Your task to perform on an android device: see tabs open on other devices in the chrome app Image 0: 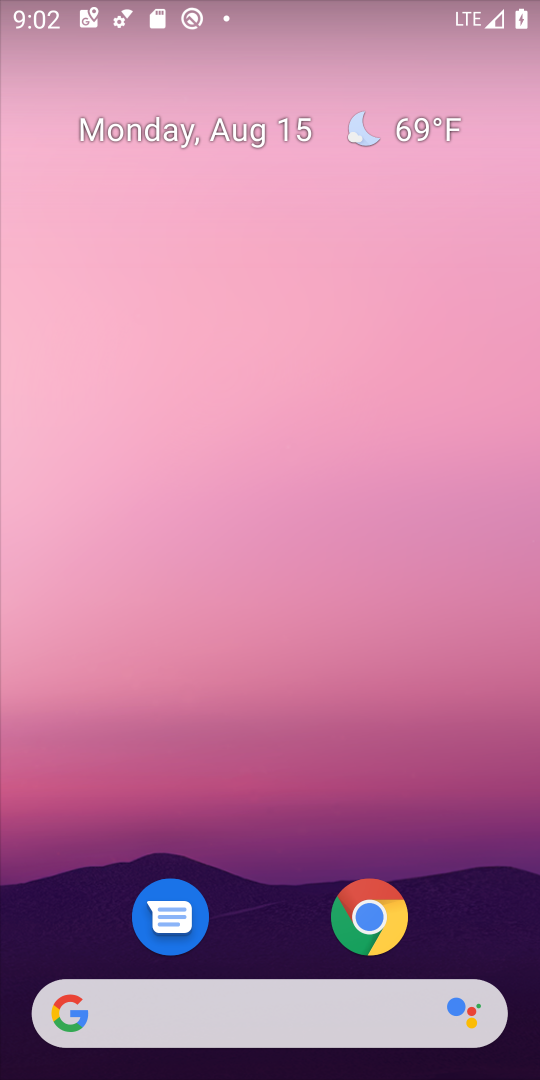
Step 0: click (299, 1029)
Your task to perform on an android device: see tabs open on other devices in the chrome app Image 1: 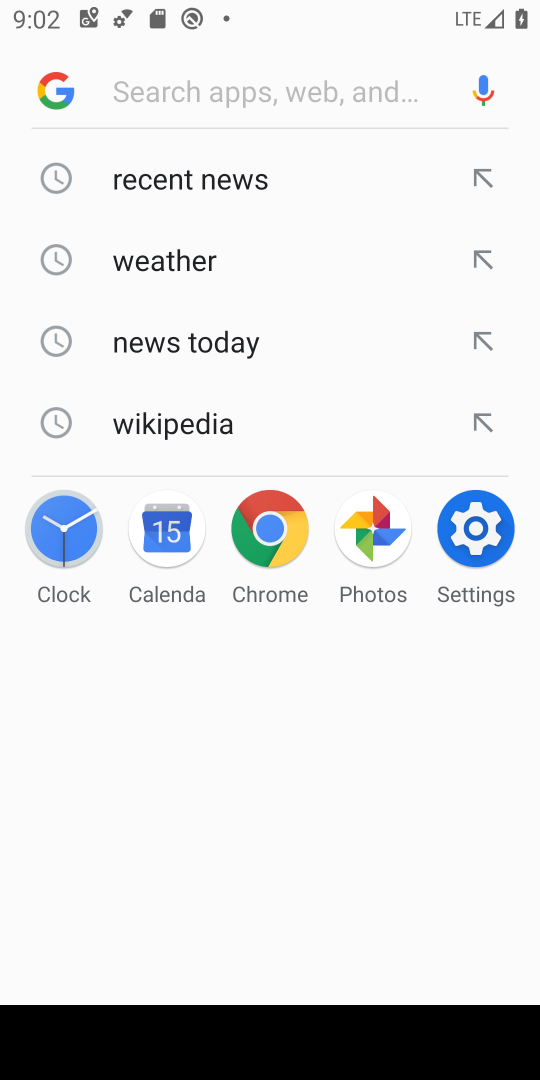
Step 1: type "yahoo.com"
Your task to perform on an android device: see tabs open on other devices in the chrome app Image 2: 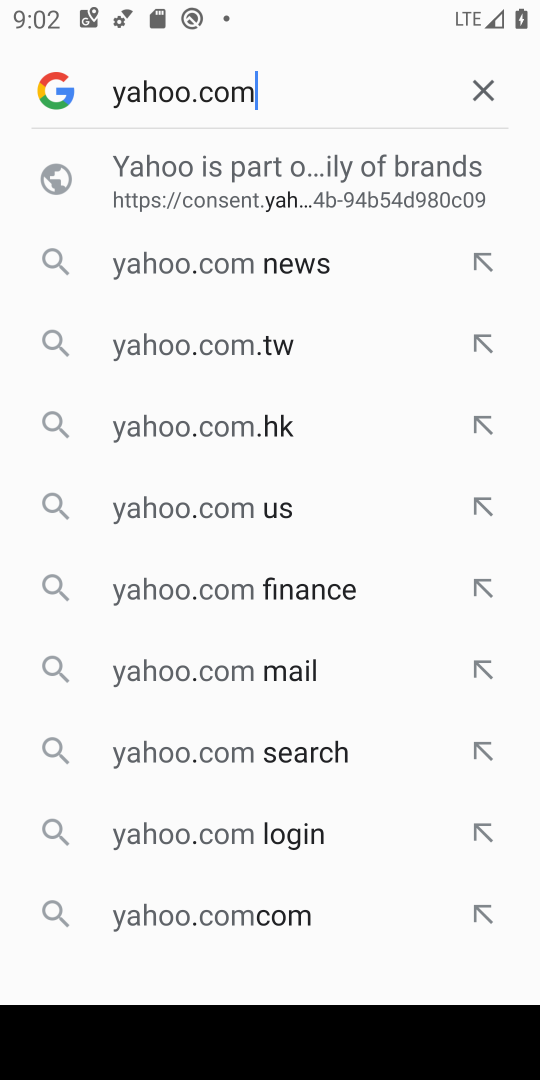
Step 2: click (246, 188)
Your task to perform on an android device: see tabs open on other devices in the chrome app Image 3: 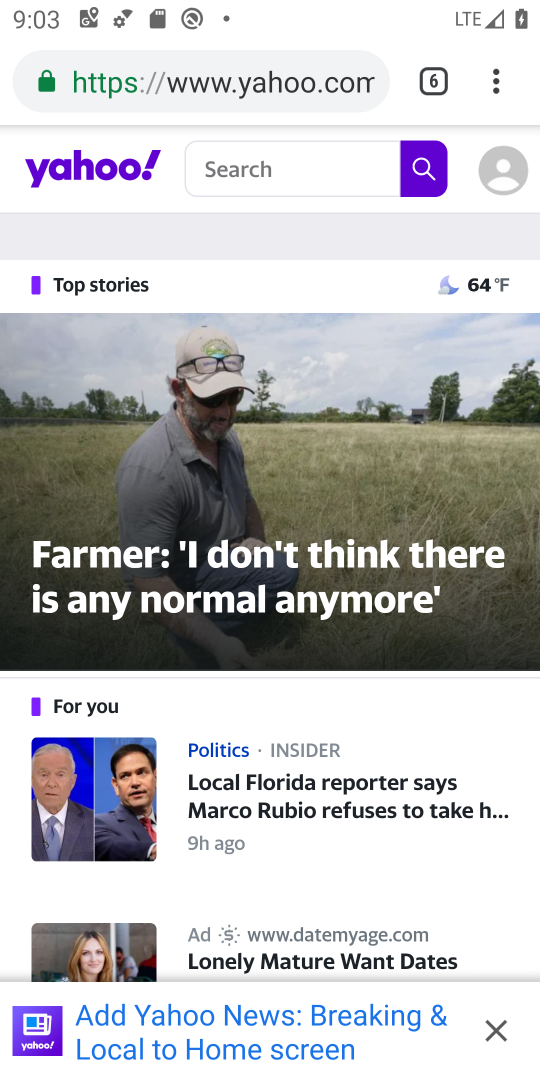
Step 3: task complete